Your task to perform on an android device: set the stopwatch Image 0: 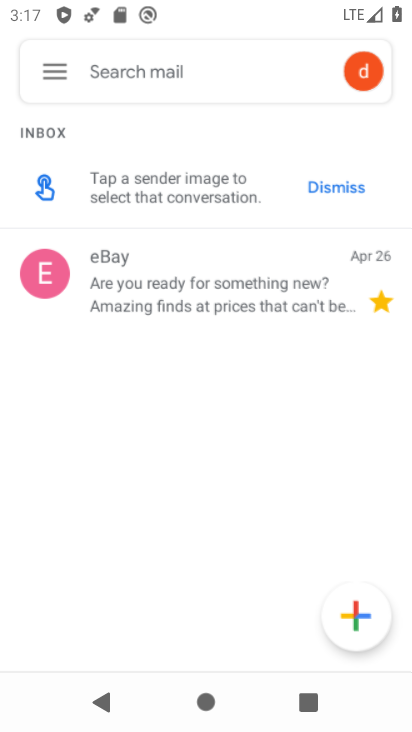
Step 0: drag from (326, 562) to (271, 82)
Your task to perform on an android device: set the stopwatch Image 1: 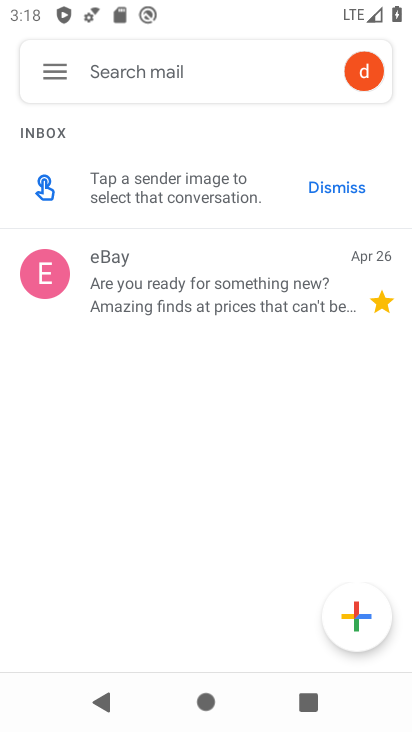
Step 1: press home button
Your task to perform on an android device: set the stopwatch Image 2: 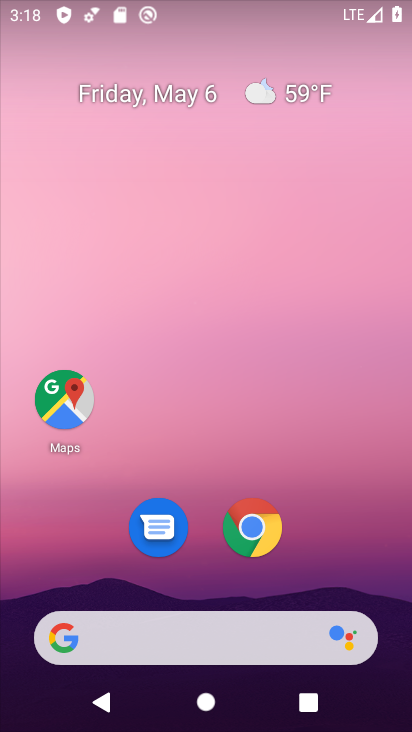
Step 2: drag from (304, 583) to (298, 90)
Your task to perform on an android device: set the stopwatch Image 3: 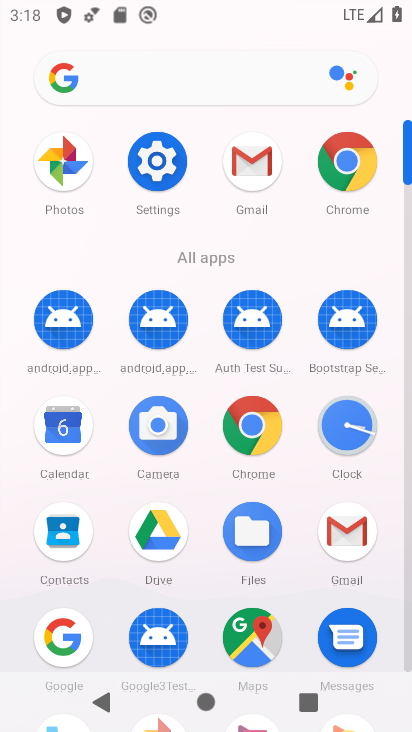
Step 3: click (335, 421)
Your task to perform on an android device: set the stopwatch Image 4: 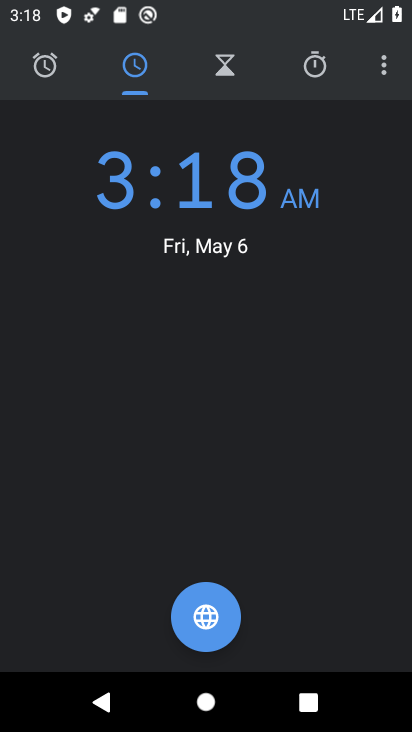
Step 4: click (304, 79)
Your task to perform on an android device: set the stopwatch Image 5: 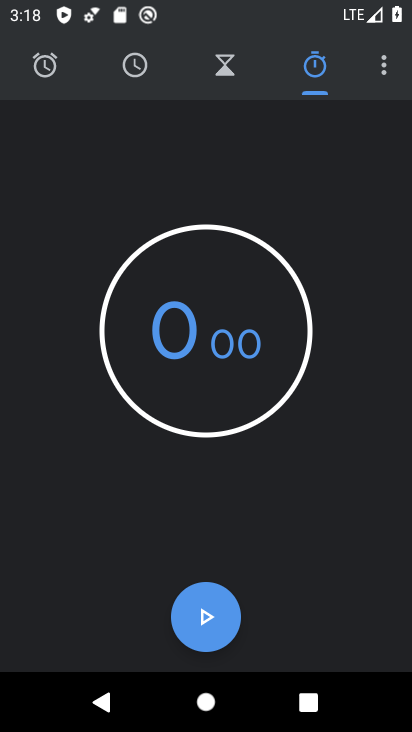
Step 5: click (206, 607)
Your task to perform on an android device: set the stopwatch Image 6: 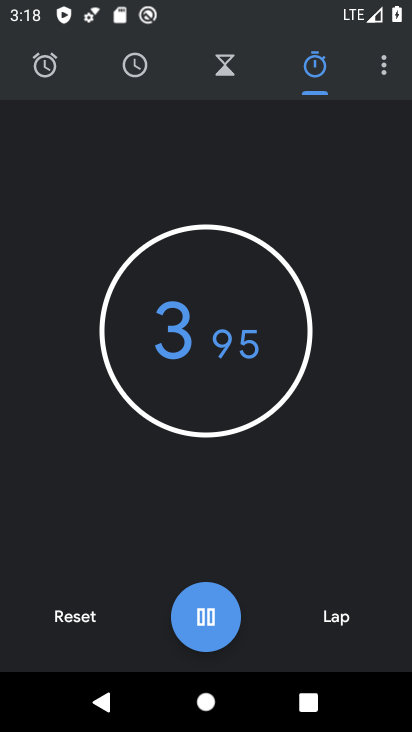
Step 6: click (207, 603)
Your task to perform on an android device: set the stopwatch Image 7: 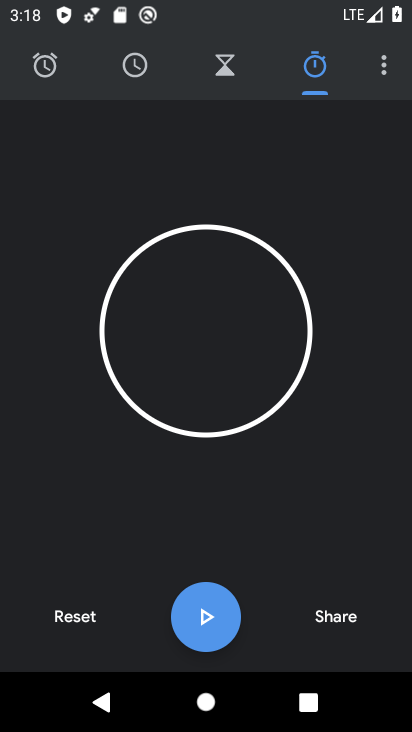
Step 7: task complete